Your task to perform on an android device: add a label to a message in the gmail app Image 0: 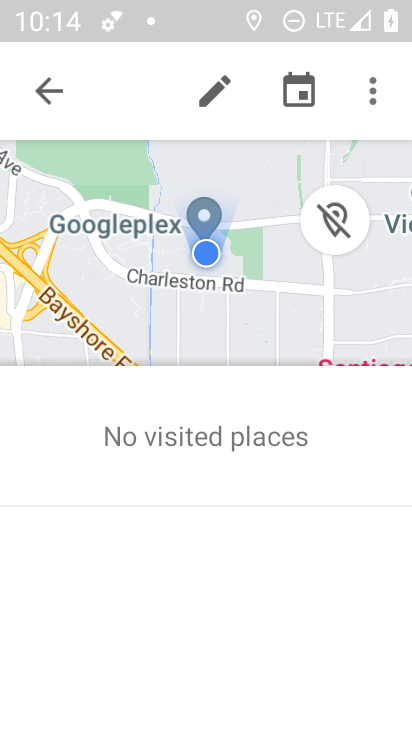
Step 0: press home button
Your task to perform on an android device: add a label to a message in the gmail app Image 1: 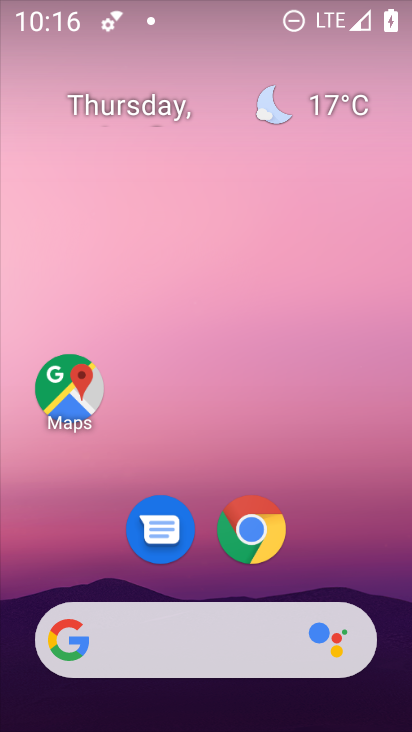
Step 1: drag from (388, 702) to (338, 117)
Your task to perform on an android device: add a label to a message in the gmail app Image 2: 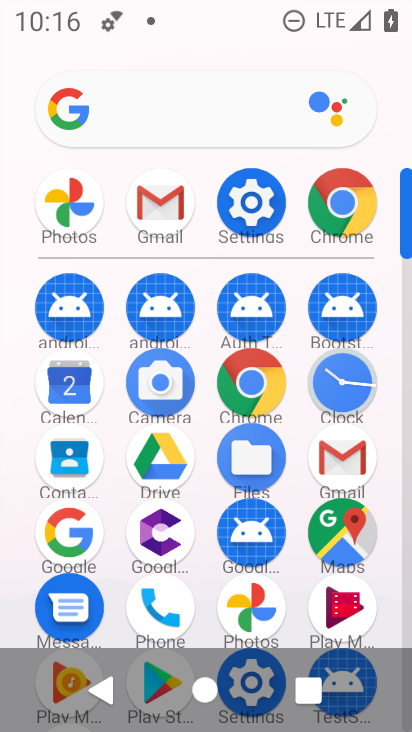
Step 2: click (352, 468)
Your task to perform on an android device: add a label to a message in the gmail app Image 3: 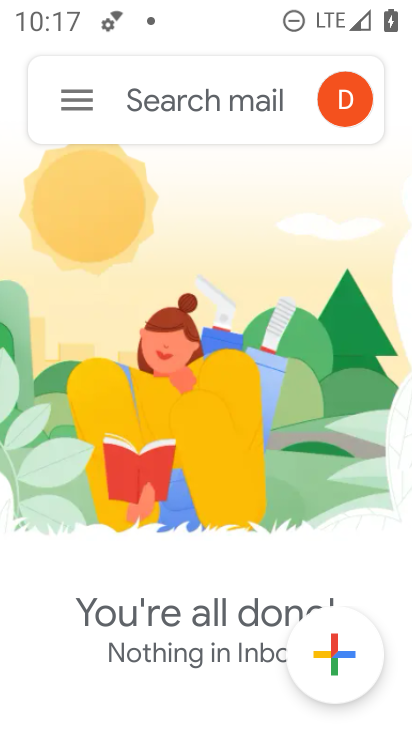
Step 3: click (72, 92)
Your task to perform on an android device: add a label to a message in the gmail app Image 4: 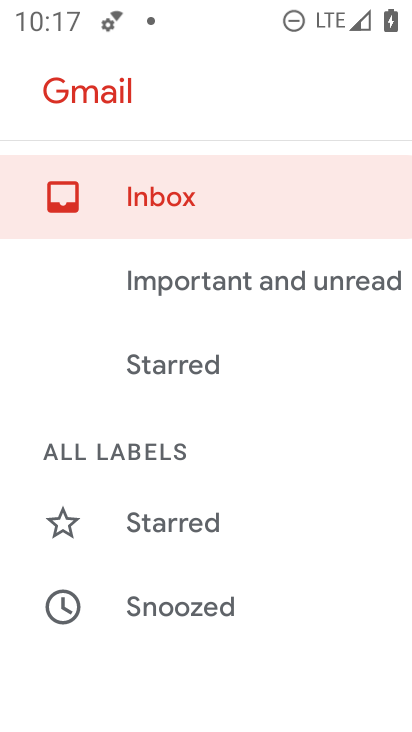
Step 4: click (130, 206)
Your task to perform on an android device: add a label to a message in the gmail app Image 5: 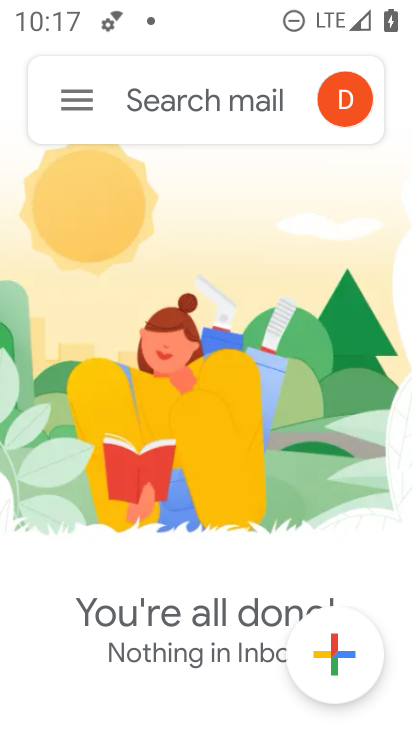
Step 5: task complete